Your task to perform on an android device: Open Android settings Image 0: 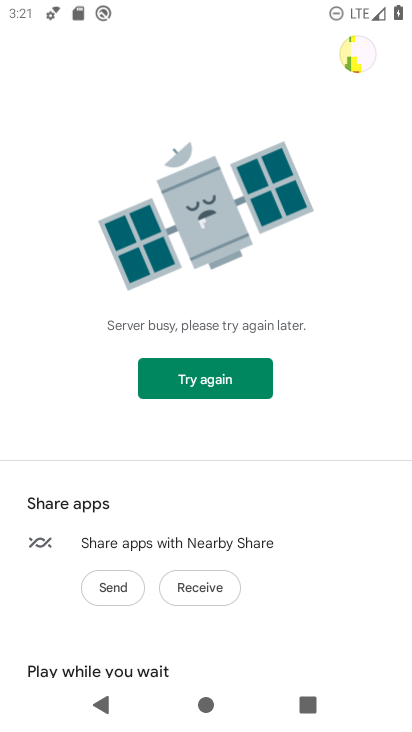
Step 0: press back button
Your task to perform on an android device: Open Android settings Image 1: 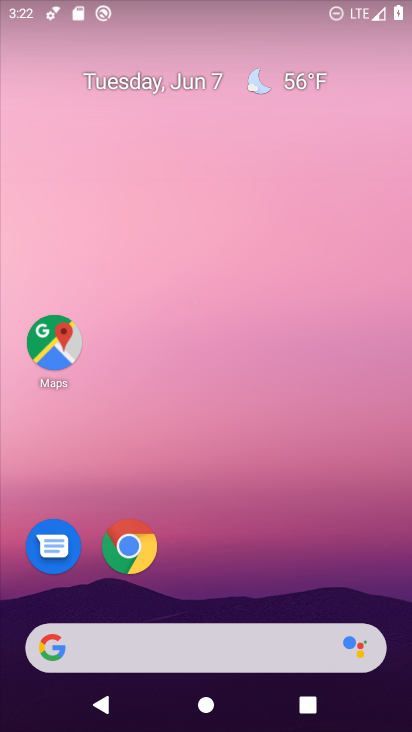
Step 1: drag from (271, 552) to (241, 9)
Your task to perform on an android device: Open Android settings Image 2: 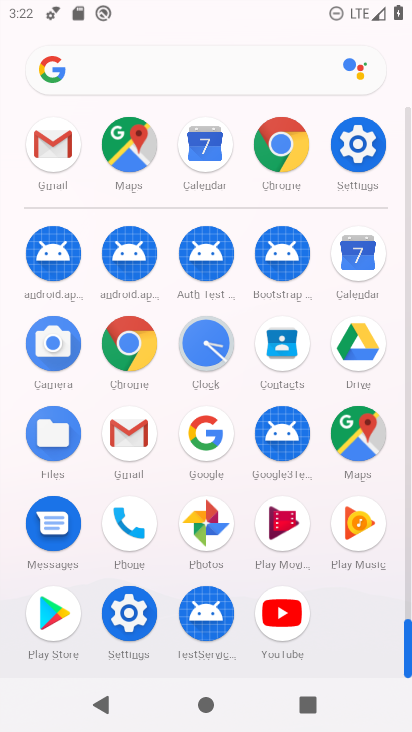
Step 2: drag from (5, 620) to (16, 214)
Your task to perform on an android device: Open Android settings Image 3: 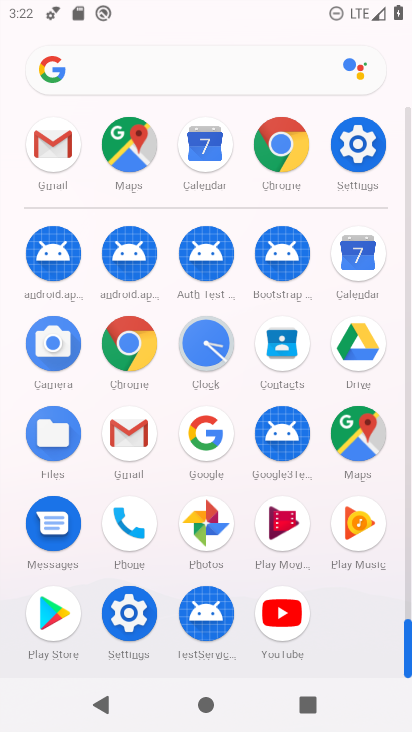
Step 3: click (128, 612)
Your task to perform on an android device: Open Android settings Image 4: 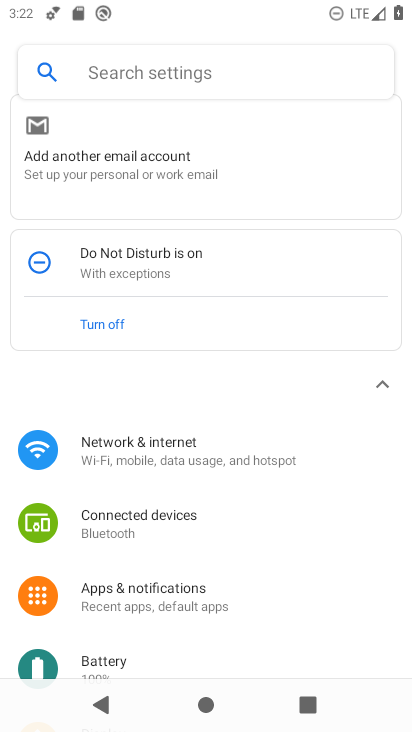
Step 4: task complete